Your task to perform on an android device: turn off javascript in the chrome app Image 0: 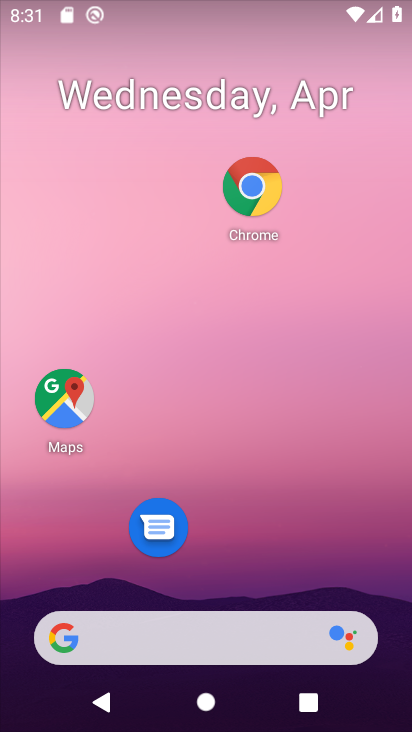
Step 0: drag from (230, 528) to (271, 69)
Your task to perform on an android device: turn off javascript in the chrome app Image 1: 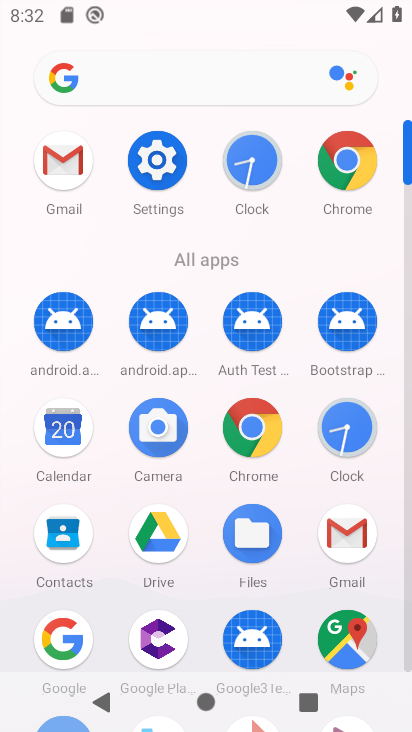
Step 1: click (265, 408)
Your task to perform on an android device: turn off javascript in the chrome app Image 2: 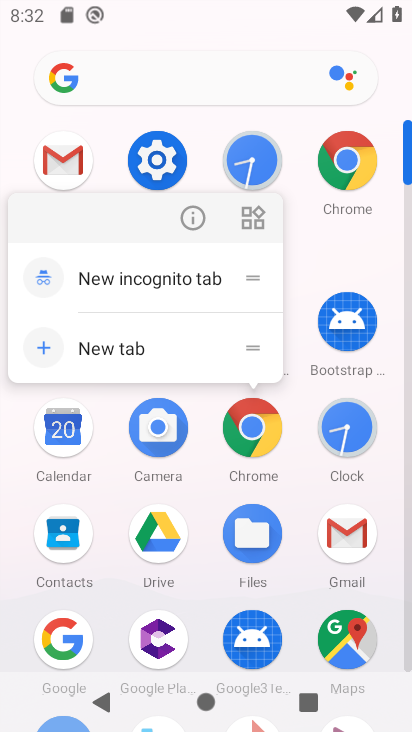
Step 2: click (259, 425)
Your task to perform on an android device: turn off javascript in the chrome app Image 3: 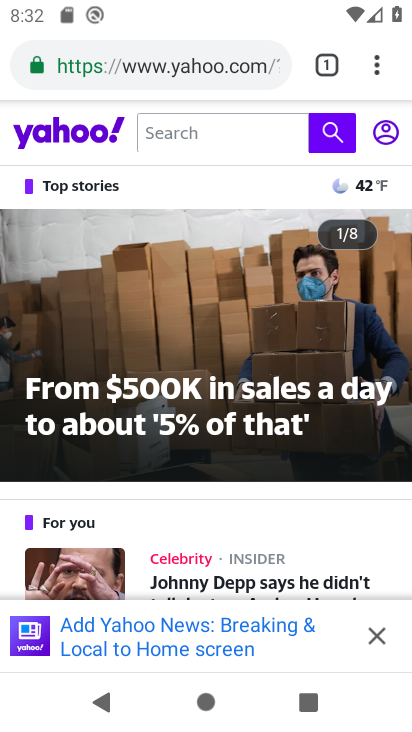
Step 3: click (368, 59)
Your task to perform on an android device: turn off javascript in the chrome app Image 4: 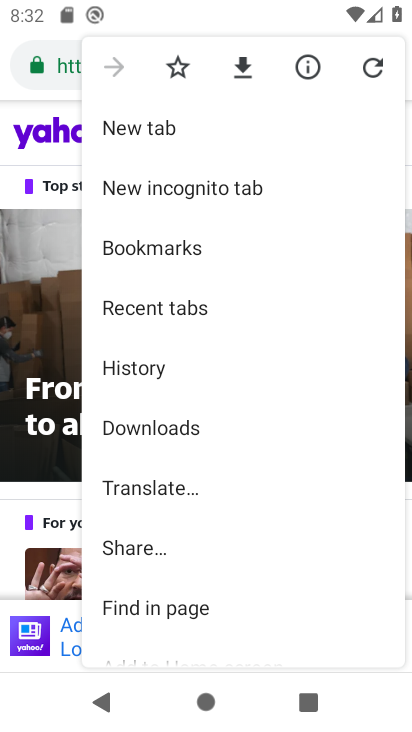
Step 4: drag from (239, 536) to (316, 149)
Your task to perform on an android device: turn off javascript in the chrome app Image 5: 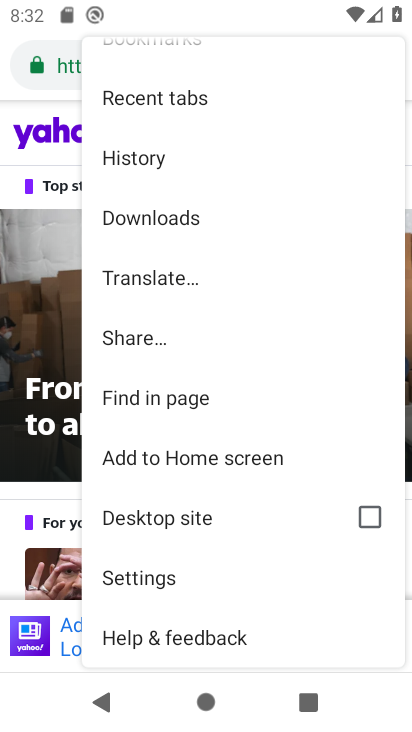
Step 5: click (162, 580)
Your task to perform on an android device: turn off javascript in the chrome app Image 6: 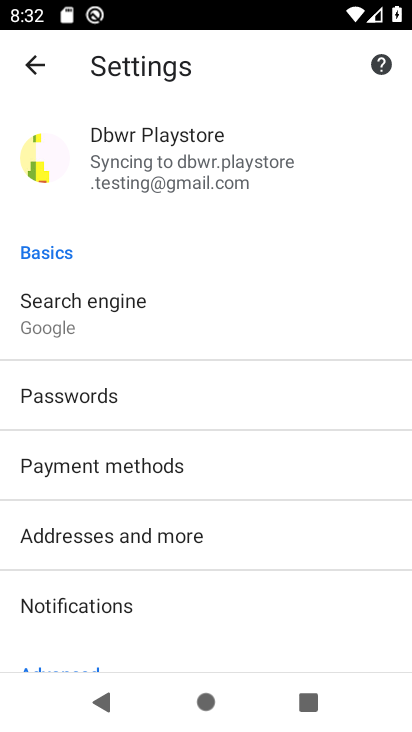
Step 6: drag from (183, 620) to (216, 193)
Your task to perform on an android device: turn off javascript in the chrome app Image 7: 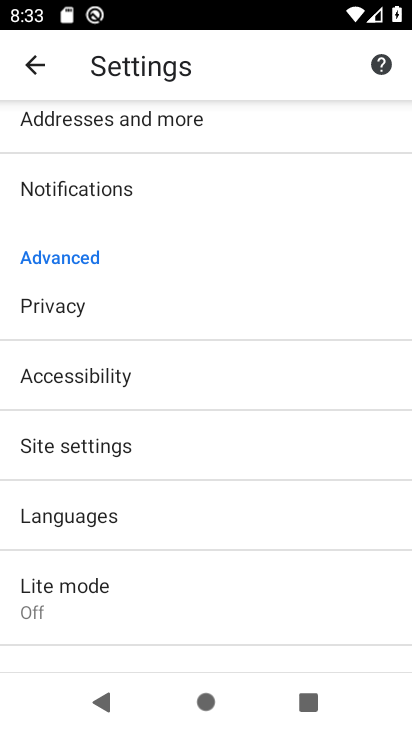
Step 7: click (120, 449)
Your task to perform on an android device: turn off javascript in the chrome app Image 8: 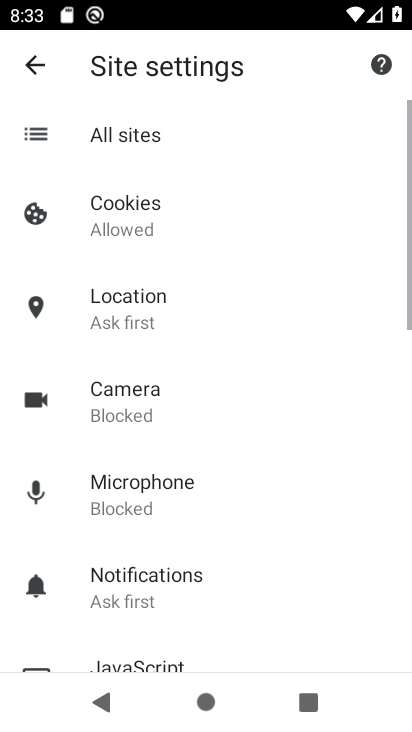
Step 8: drag from (209, 597) to (278, 168)
Your task to perform on an android device: turn off javascript in the chrome app Image 9: 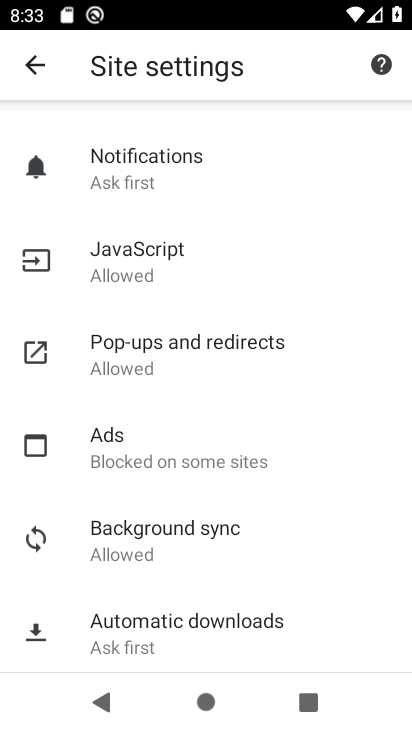
Step 9: click (149, 243)
Your task to perform on an android device: turn off javascript in the chrome app Image 10: 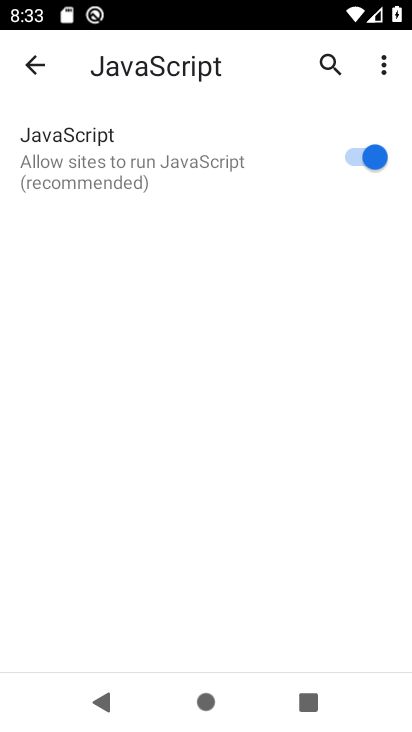
Step 10: click (350, 153)
Your task to perform on an android device: turn off javascript in the chrome app Image 11: 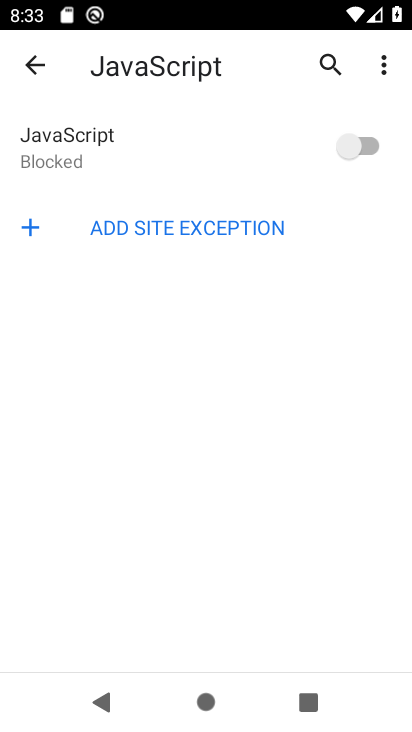
Step 11: task complete